Your task to perform on an android device: toggle show notifications on the lock screen Image 0: 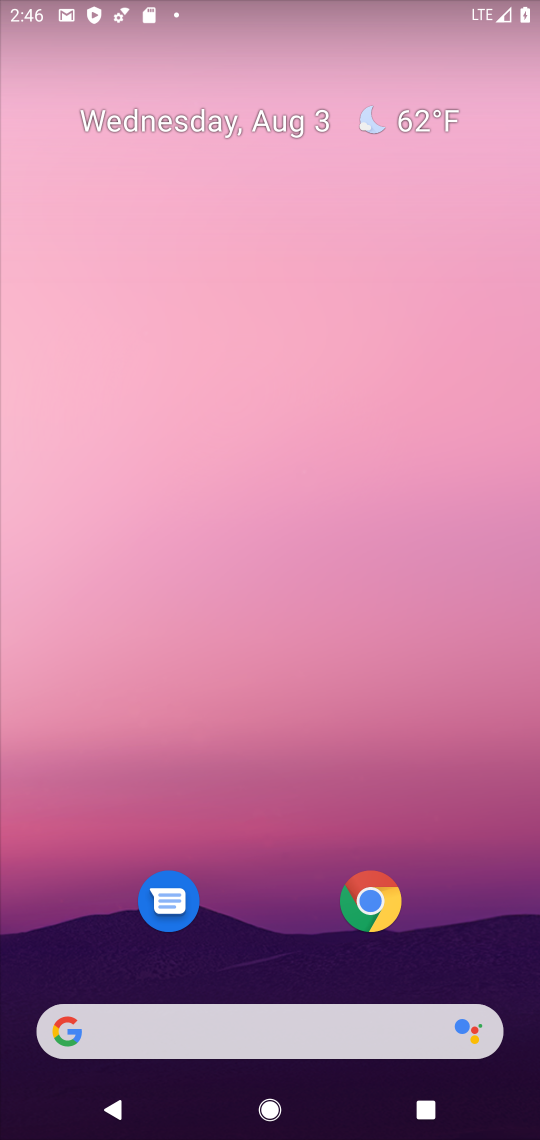
Step 0: drag from (289, 718) to (297, 466)
Your task to perform on an android device: toggle show notifications on the lock screen Image 1: 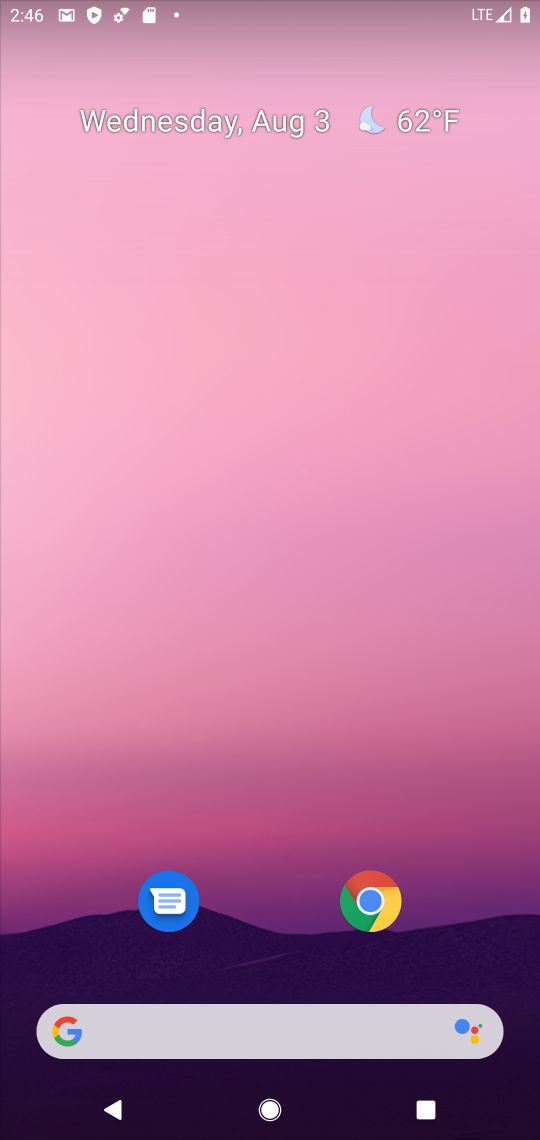
Step 1: drag from (280, 927) to (300, 119)
Your task to perform on an android device: toggle show notifications on the lock screen Image 2: 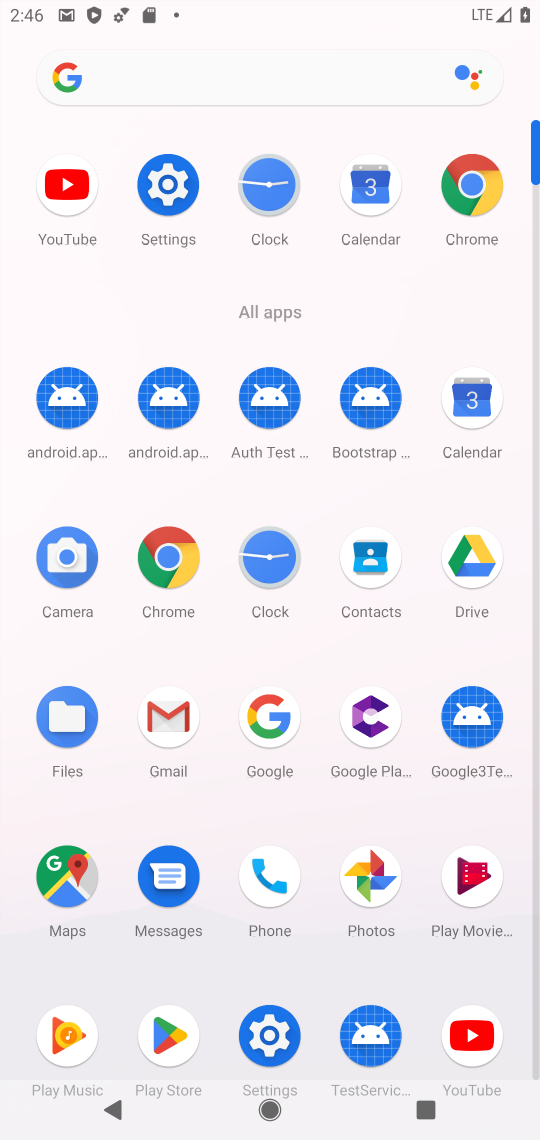
Step 2: click (152, 153)
Your task to perform on an android device: toggle show notifications on the lock screen Image 3: 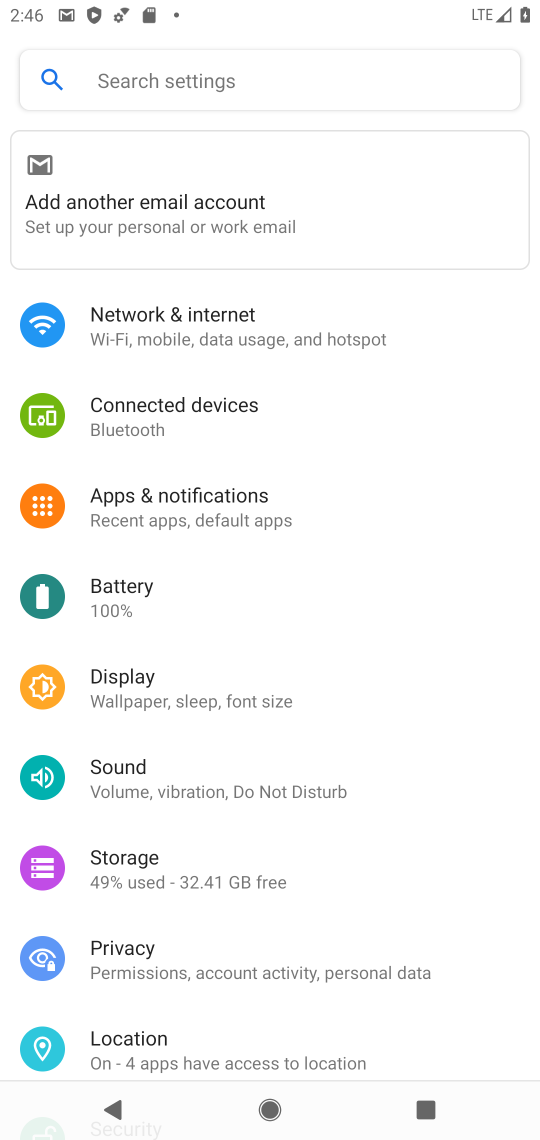
Step 3: click (201, 501)
Your task to perform on an android device: toggle show notifications on the lock screen Image 4: 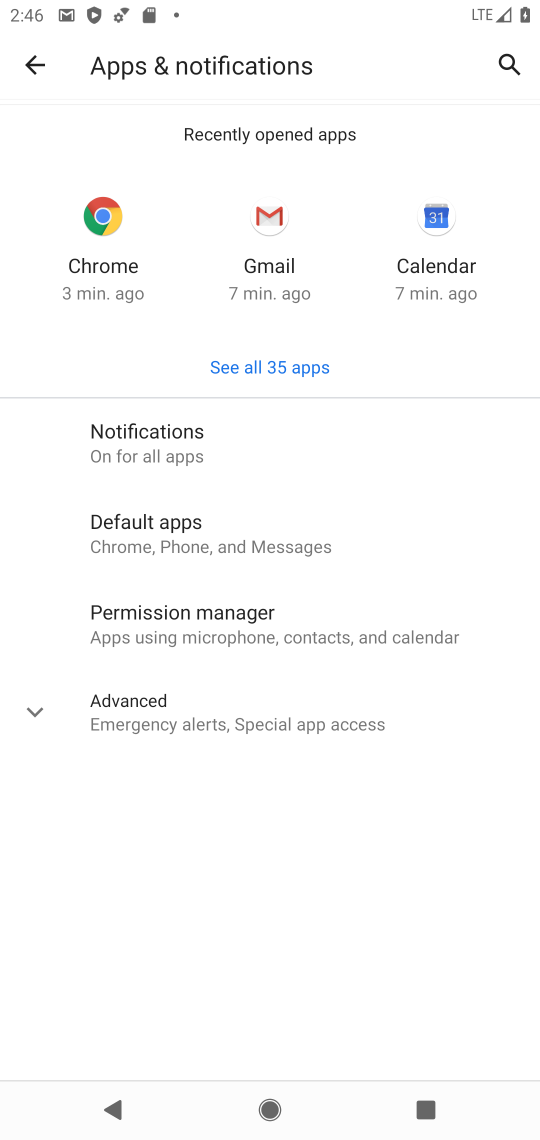
Step 4: click (183, 707)
Your task to perform on an android device: toggle show notifications on the lock screen Image 5: 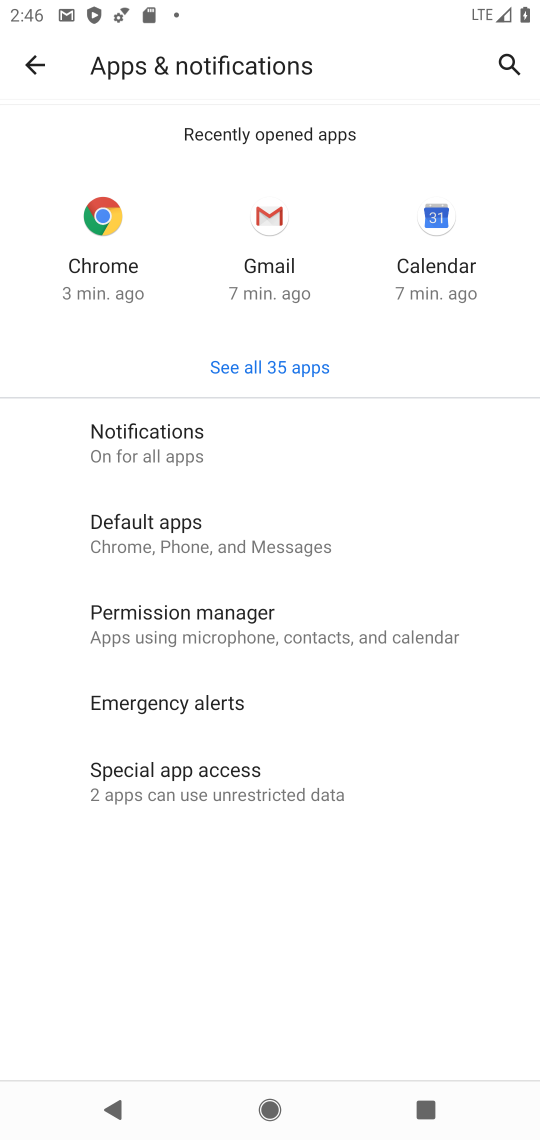
Step 5: click (196, 418)
Your task to perform on an android device: toggle show notifications on the lock screen Image 6: 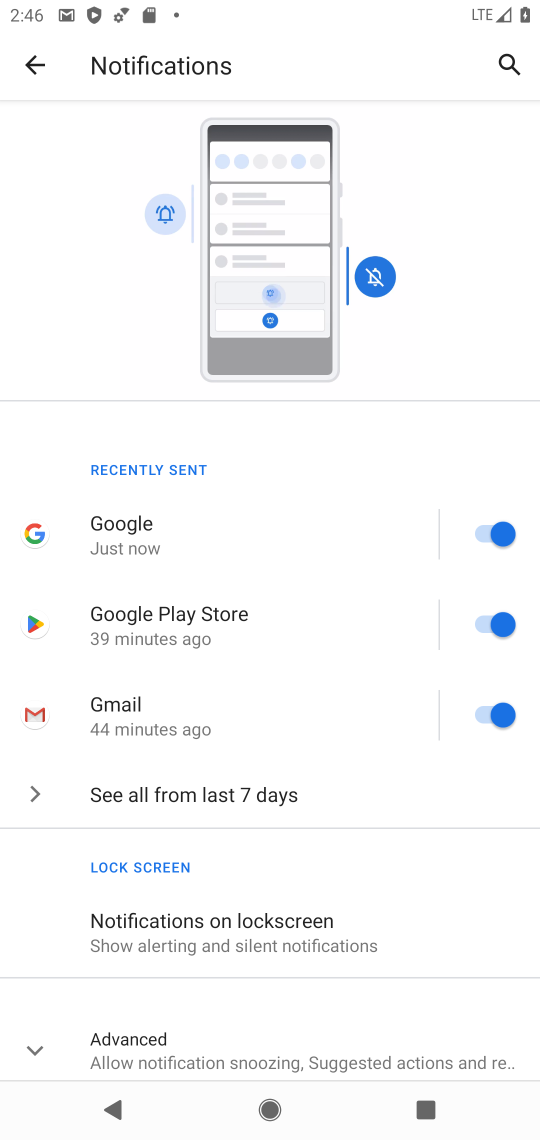
Step 6: click (285, 935)
Your task to perform on an android device: toggle show notifications on the lock screen Image 7: 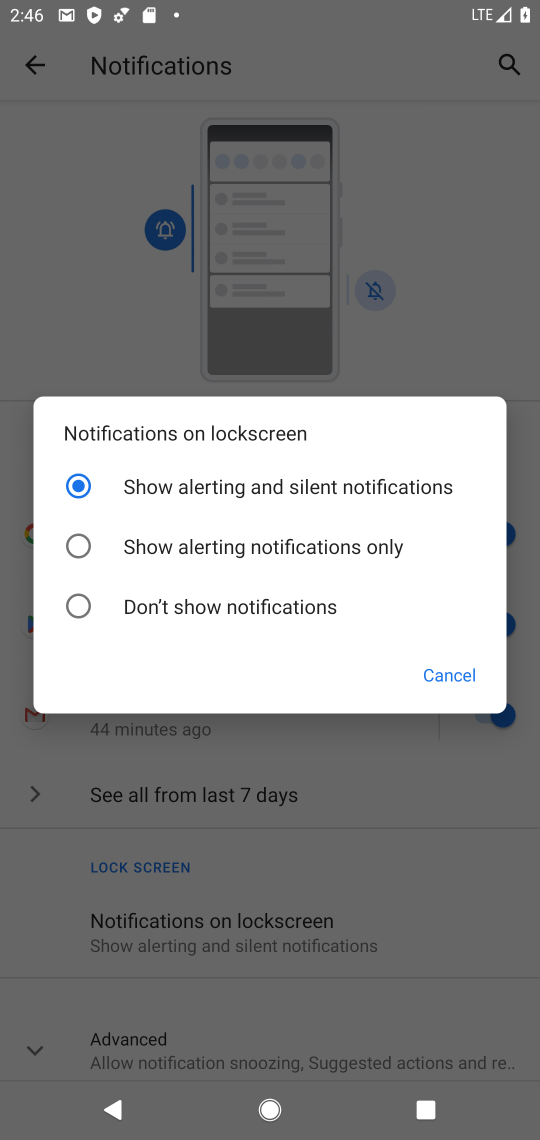
Step 7: click (163, 587)
Your task to perform on an android device: toggle show notifications on the lock screen Image 8: 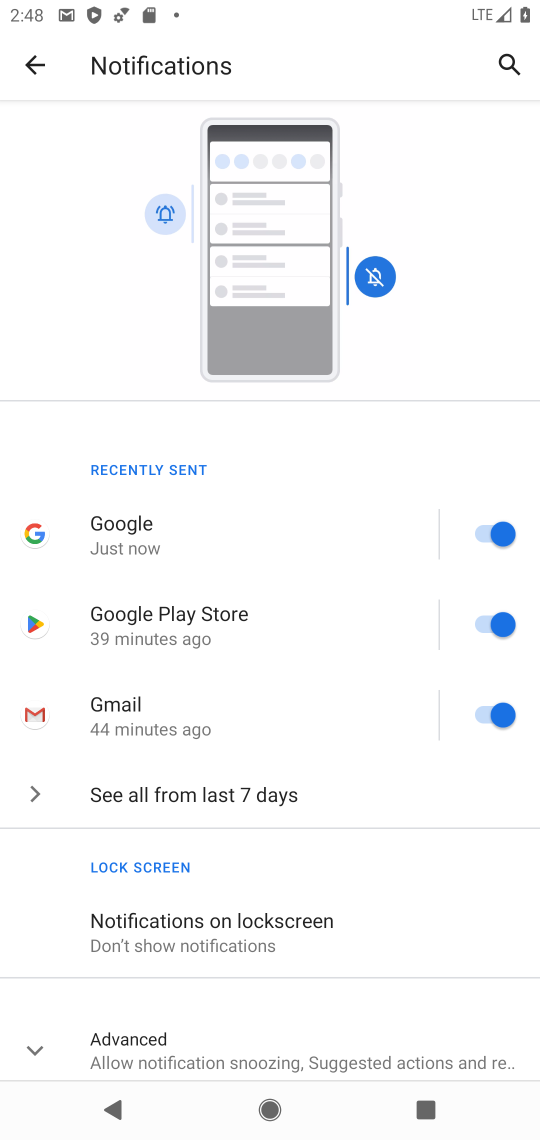
Step 8: task complete